Your task to perform on an android device: turn pop-ups on in chrome Image 0: 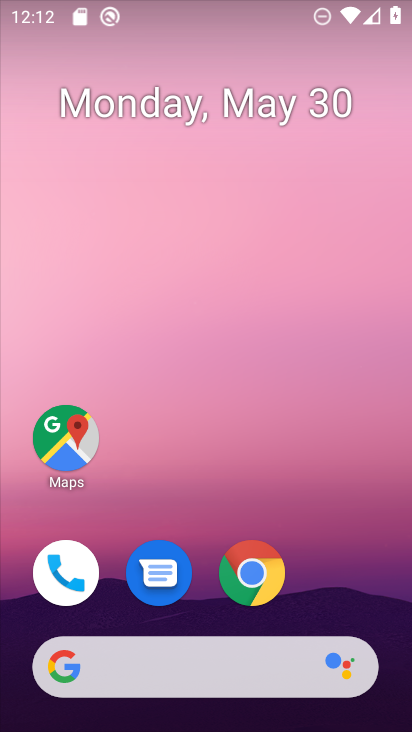
Step 0: press home button
Your task to perform on an android device: turn pop-ups on in chrome Image 1: 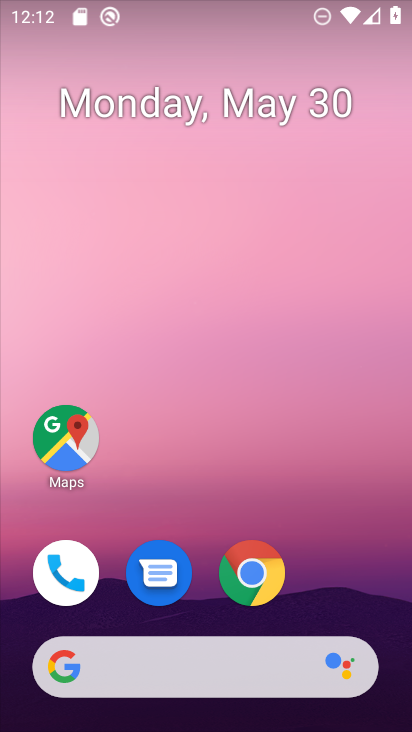
Step 1: click (258, 573)
Your task to perform on an android device: turn pop-ups on in chrome Image 2: 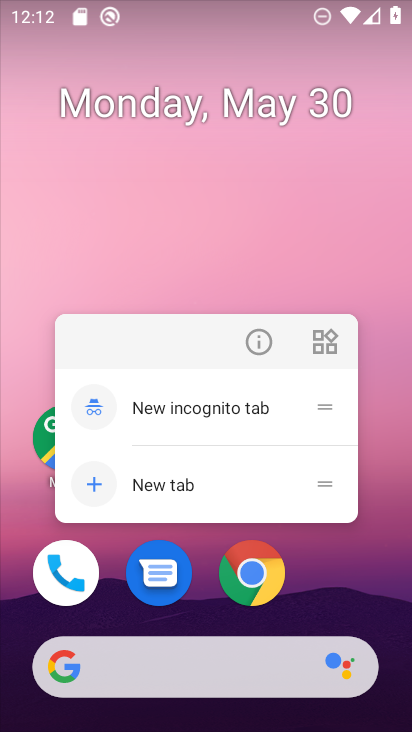
Step 2: click (201, 218)
Your task to perform on an android device: turn pop-ups on in chrome Image 3: 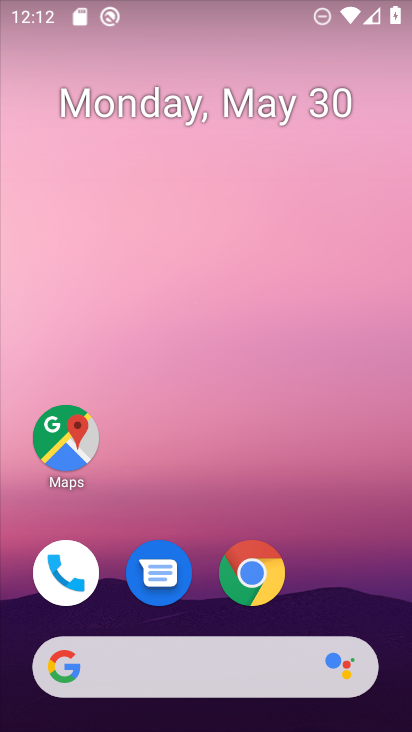
Step 3: click (264, 578)
Your task to perform on an android device: turn pop-ups on in chrome Image 4: 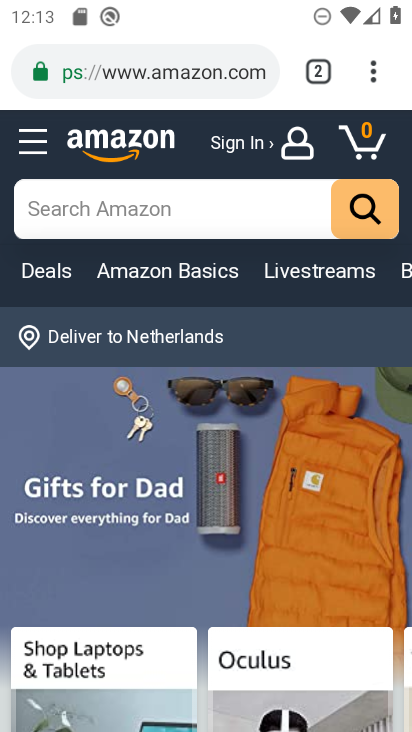
Step 4: press home button
Your task to perform on an android device: turn pop-ups on in chrome Image 5: 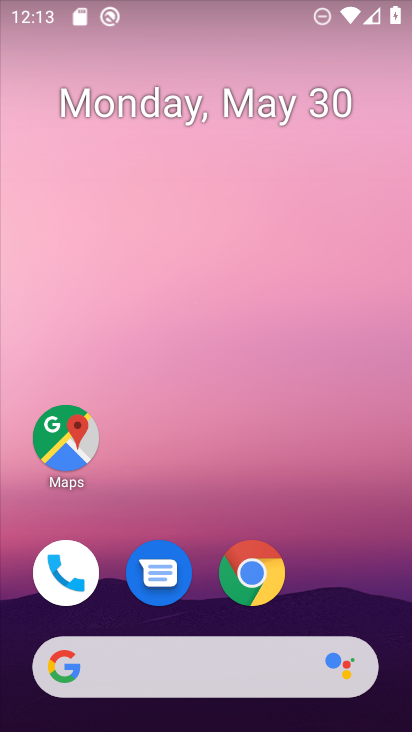
Step 5: click (268, 585)
Your task to perform on an android device: turn pop-ups on in chrome Image 6: 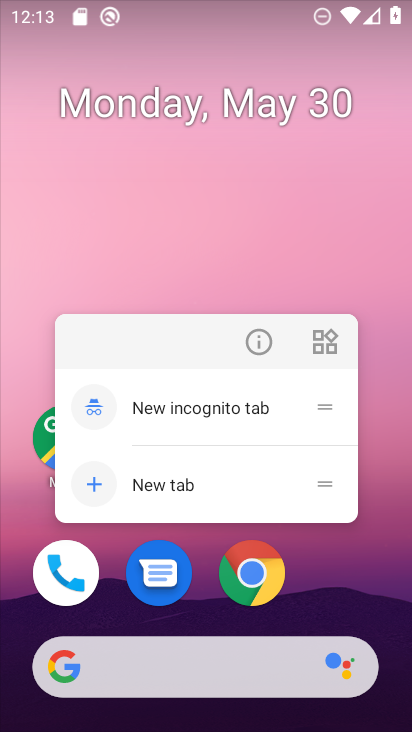
Step 6: click (260, 576)
Your task to perform on an android device: turn pop-ups on in chrome Image 7: 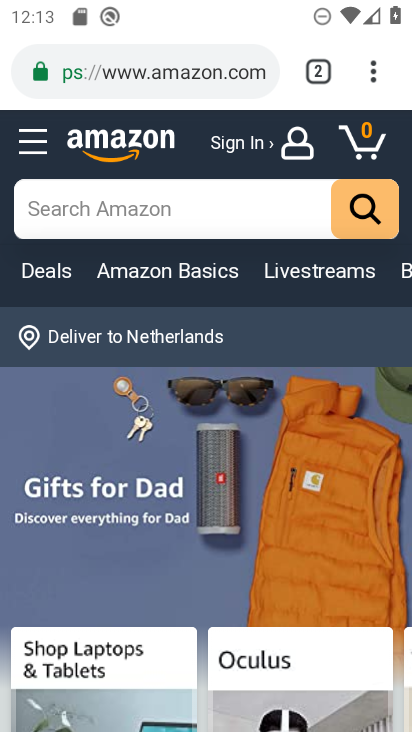
Step 7: drag from (375, 84) to (162, 567)
Your task to perform on an android device: turn pop-ups on in chrome Image 8: 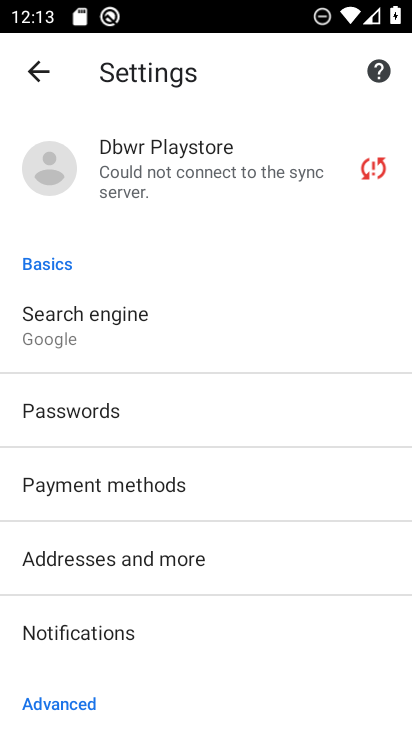
Step 8: drag from (228, 663) to (200, 278)
Your task to perform on an android device: turn pop-ups on in chrome Image 9: 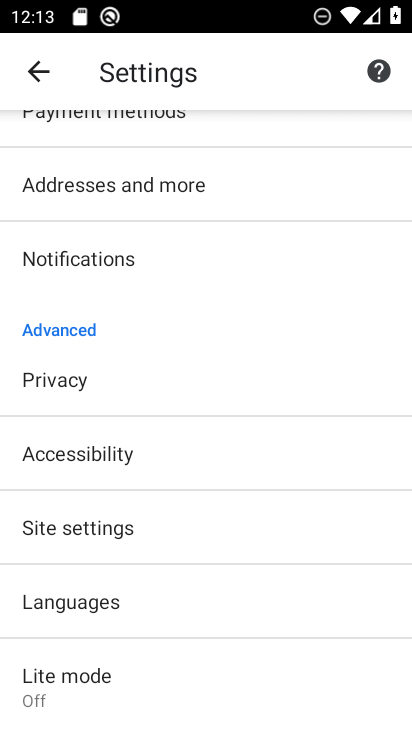
Step 9: click (81, 531)
Your task to perform on an android device: turn pop-ups on in chrome Image 10: 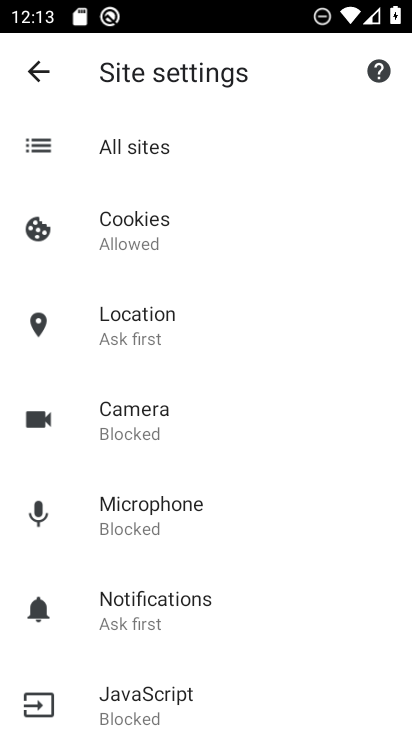
Step 10: drag from (318, 672) to (311, 170)
Your task to perform on an android device: turn pop-ups on in chrome Image 11: 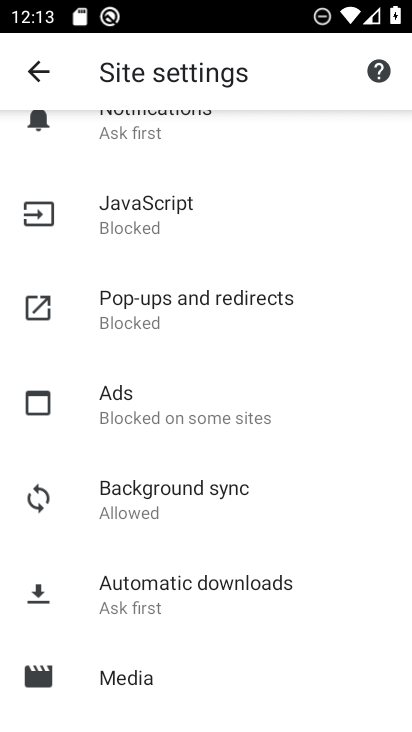
Step 11: click (139, 307)
Your task to perform on an android device: turn pop-ups on in chrome Image 12: 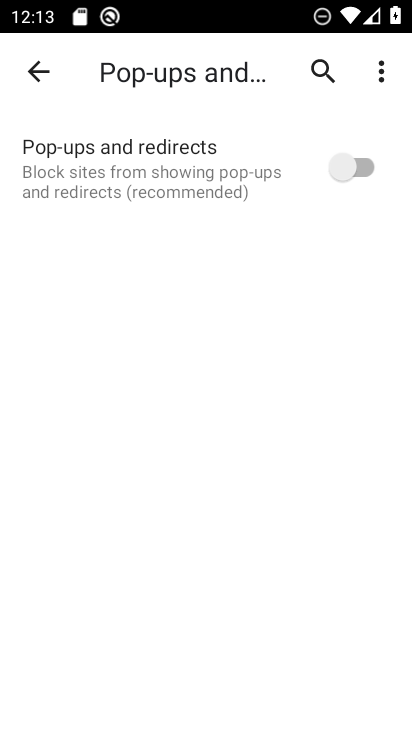
Step 12: click (342, 174)
Your task to perform on an android device: turn pop-ups on in chrome Image 13: 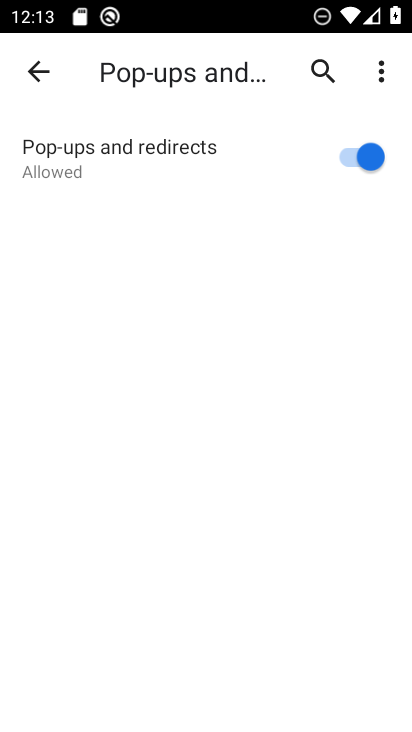
Step 13: task complete